Your task to perform on an android device: See recent photos Image 0: 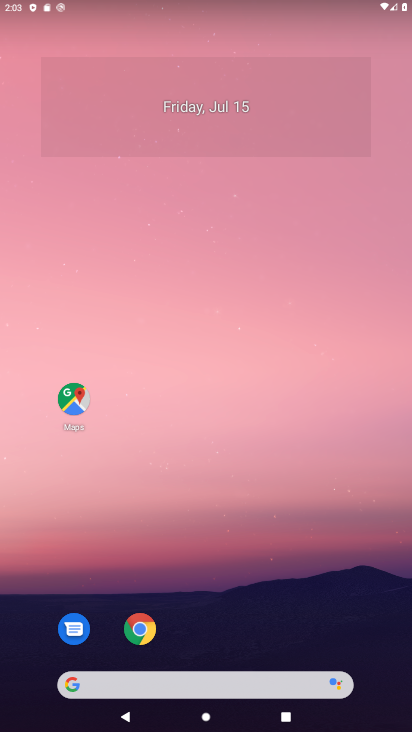
Step 0: drag from (242, 647) to (268, 156)
Your task to perform on an android device: See recent photos Image 1: 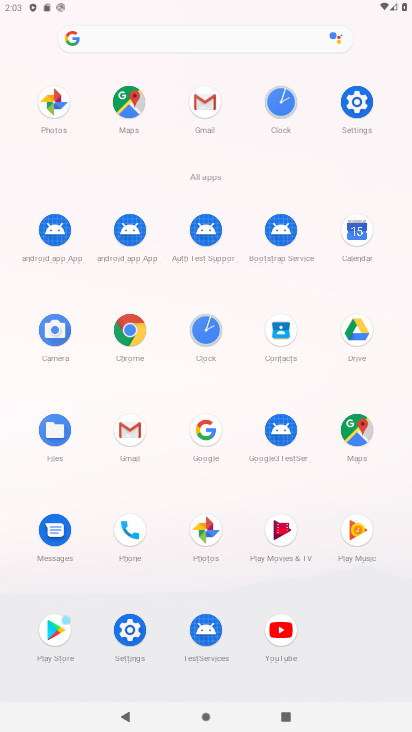
Step 1: click (210, 529)
Your task to perform on an android device: See recent photos Image 2: 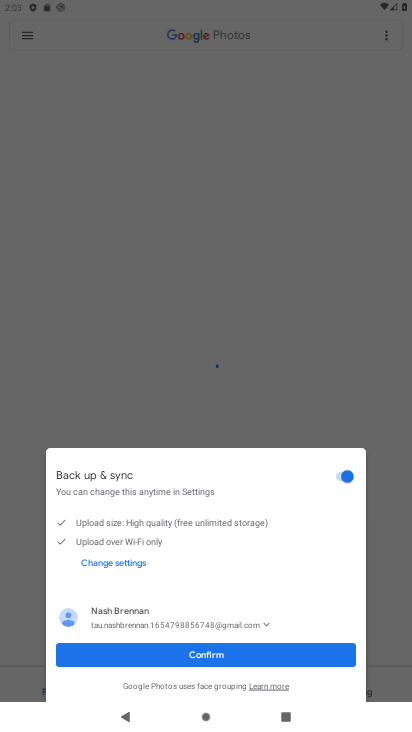
Step 2: click (223, 647)
Your task to perform on an android device: See recent photos Image 3: 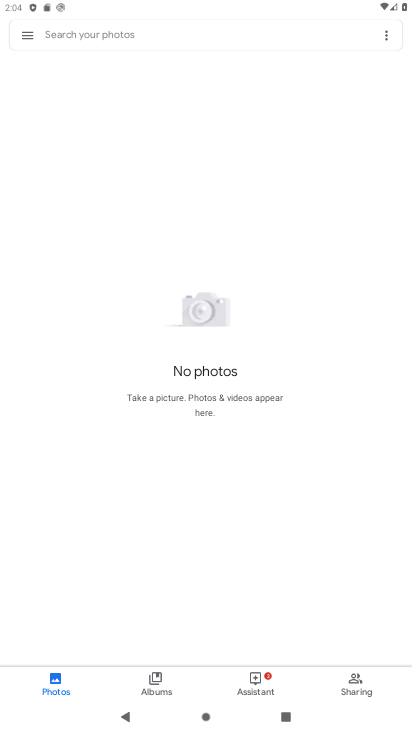
Step 3: task complete